Your task to perform on an android device: open app "Fetch Rewards" (install if not already installed) Image 0: 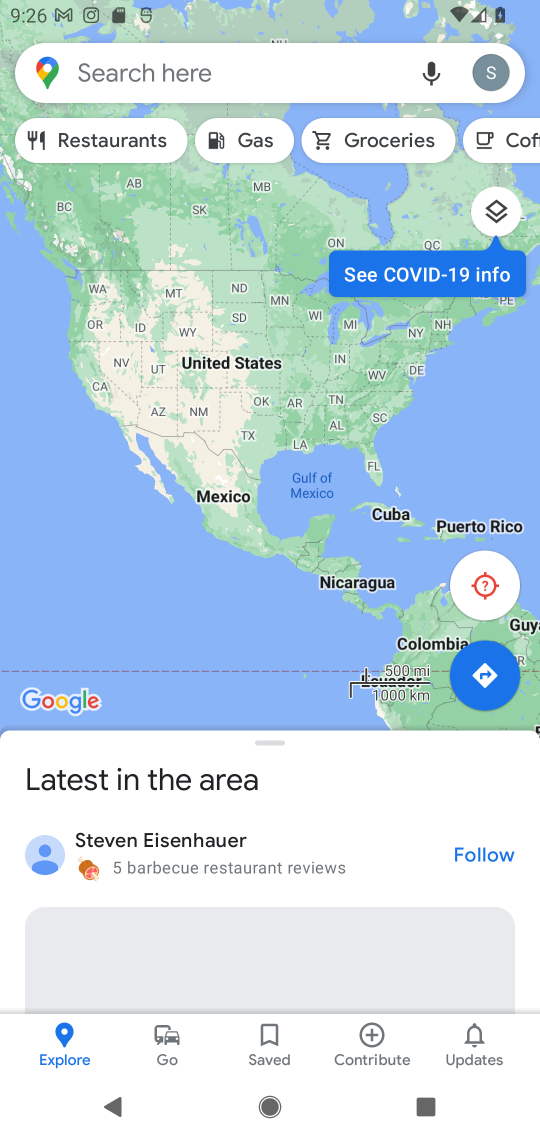
Step 0: press home button
Your task to perform on an android device: open app "Fetch Rewards" (install if not already installed) Image 1: 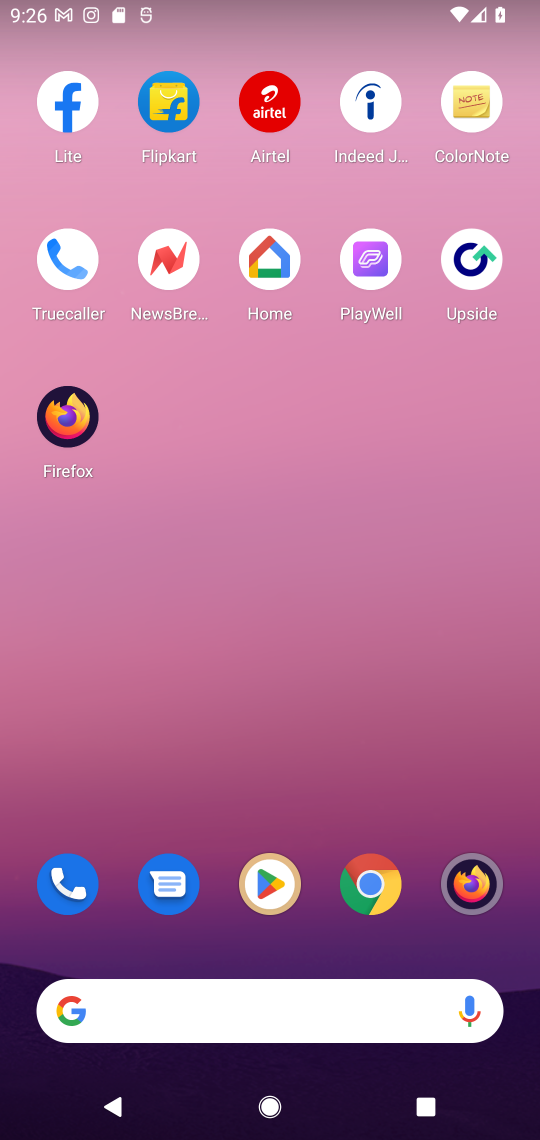
Step 1: press home button
Your task to perform on an android device: open app "Fetch Rewards" (install if not already installed) Image 2: 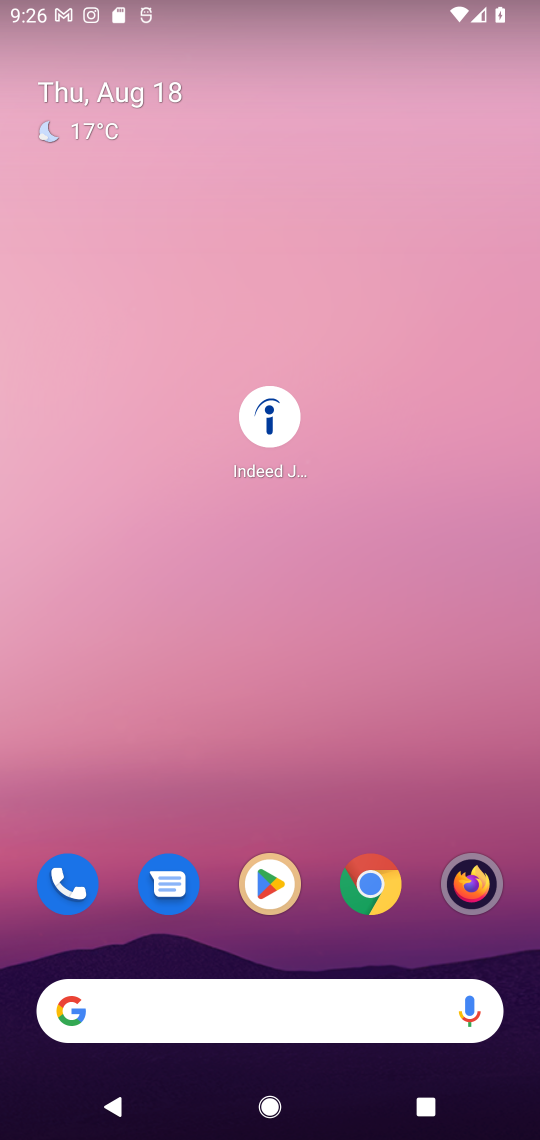
Step 2: drag from (218, 1015) to (317, 49)
Your task to perform on an android device: open app "Fetch Rewards" (install if not already installed) Image 3: 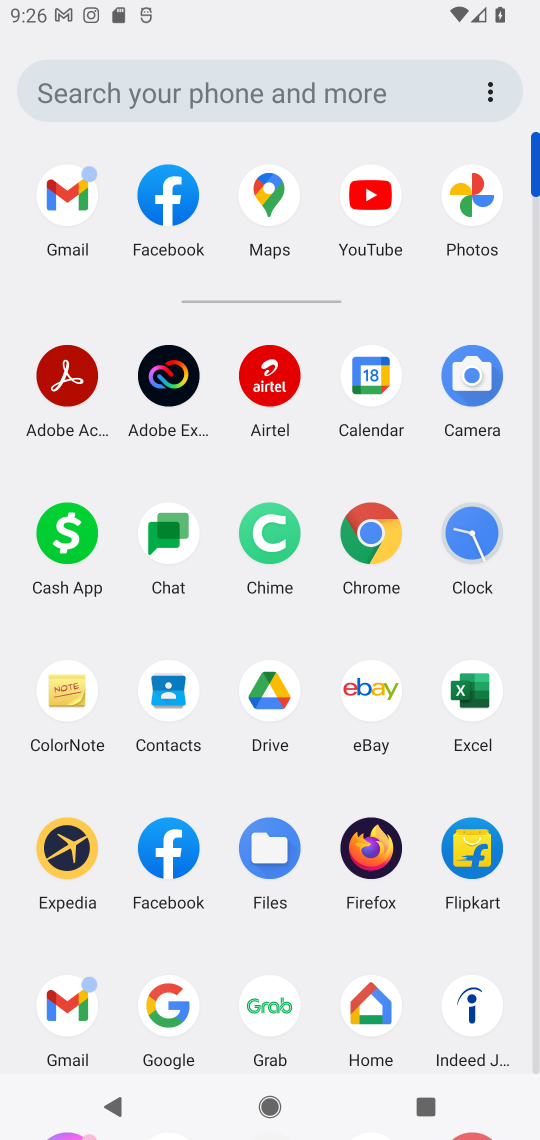
Step 3: drag from (213, 982) to (248, 322)
Your task to perform on an android device: open app "Fetch Rewards" (install if not already installed) Image 4: 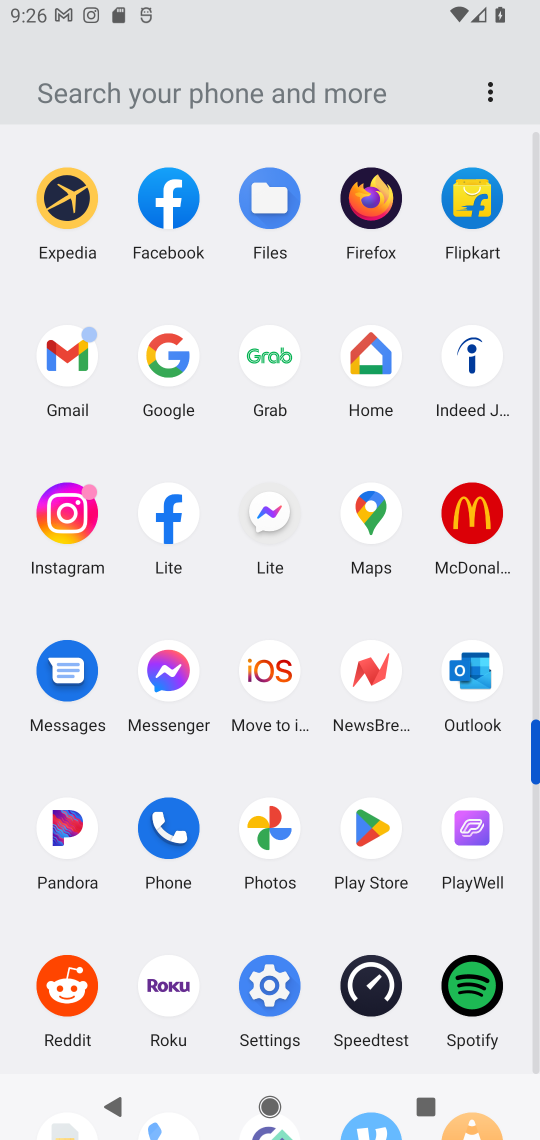
Step 4: click (376, 833)
Your task to perform on an android device: open app "Fetch Rewards" (install if not already installed) Image 5: 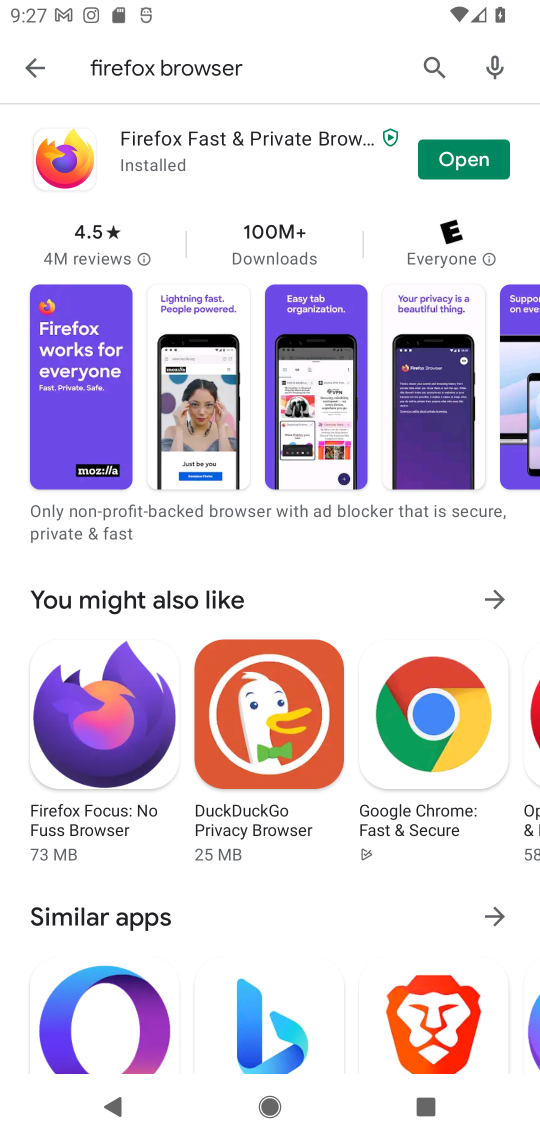
Step 5: press back button
Your task to perform on an android device: open app "Fetch Rewards" (install if not already installed) Image 6: 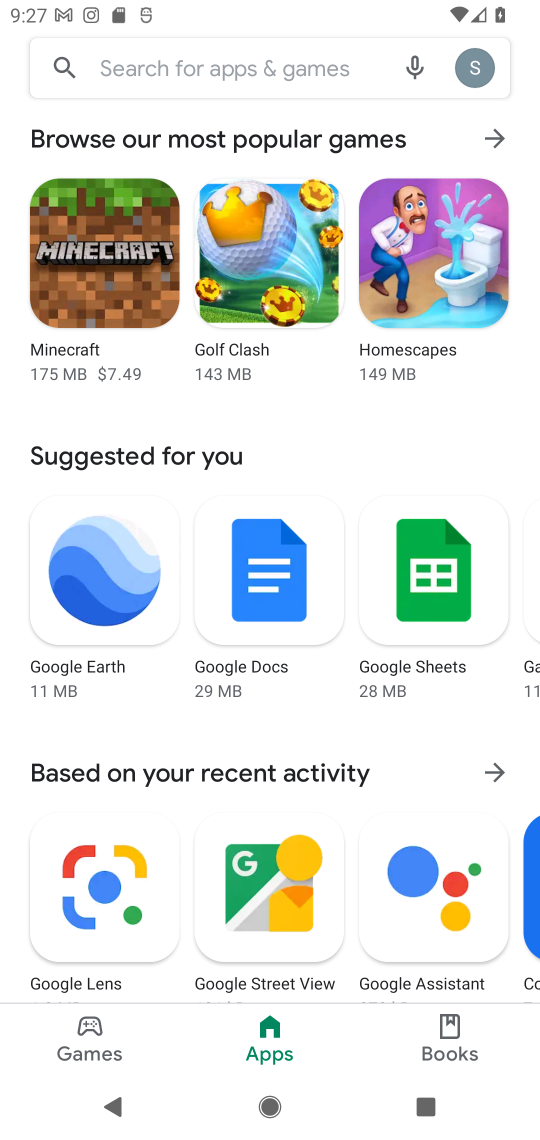
Step 6: click (269, 68)
Your task to perform on an android device: open app "Fetch Rewards" (install if not already installed) Image 7: 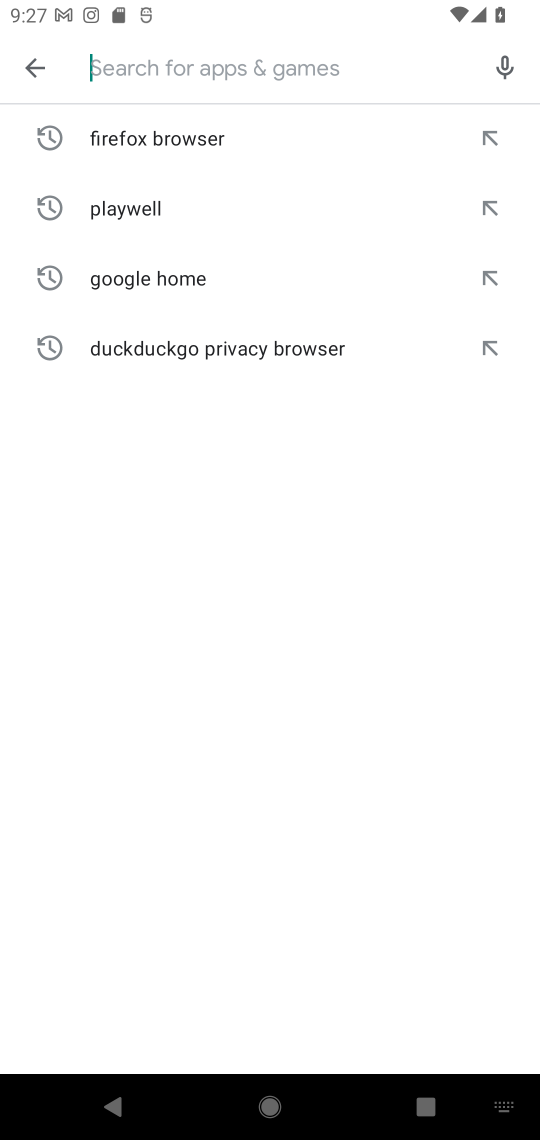
Step 7: type "Fetch Rewards"
Your task to perform on an android device: open app "Fetch Rewards" (install if not already installed) Image 8: 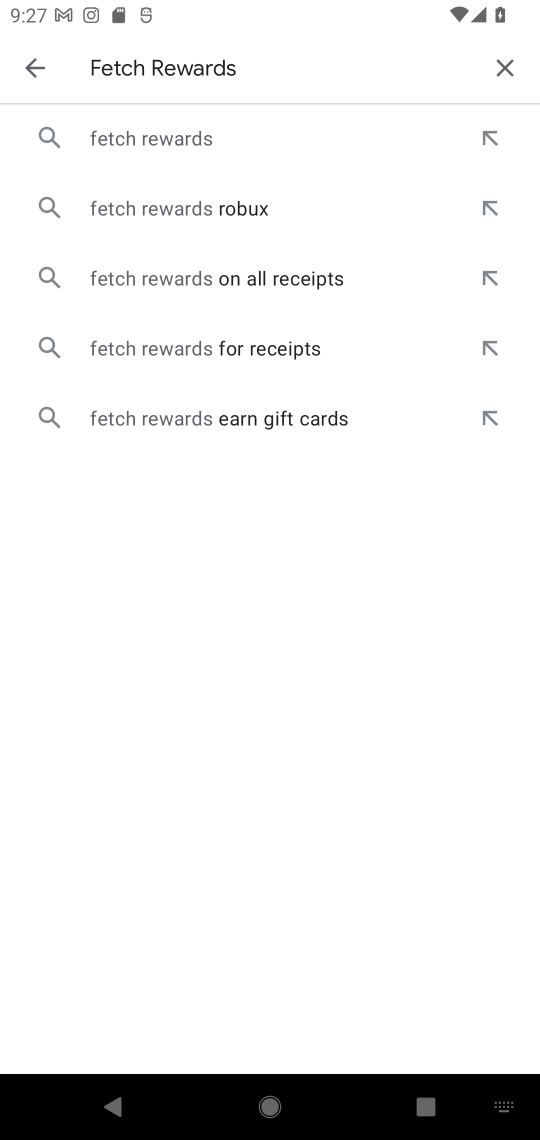
Step 8: click (171, 143)
Your task to perform on an android device: open app "Fetch Rewards" (install if not already installed) Image 9: 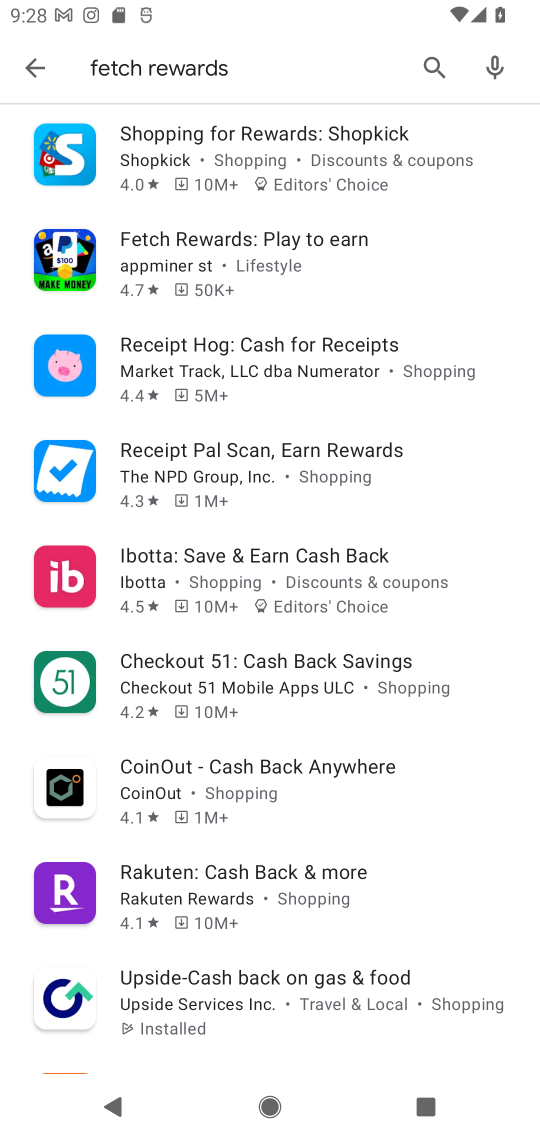
Step 9: click (175, 236)
Your task to perform on an android device: open app "Fetch Rewards" (install if not already installed) Image 10: 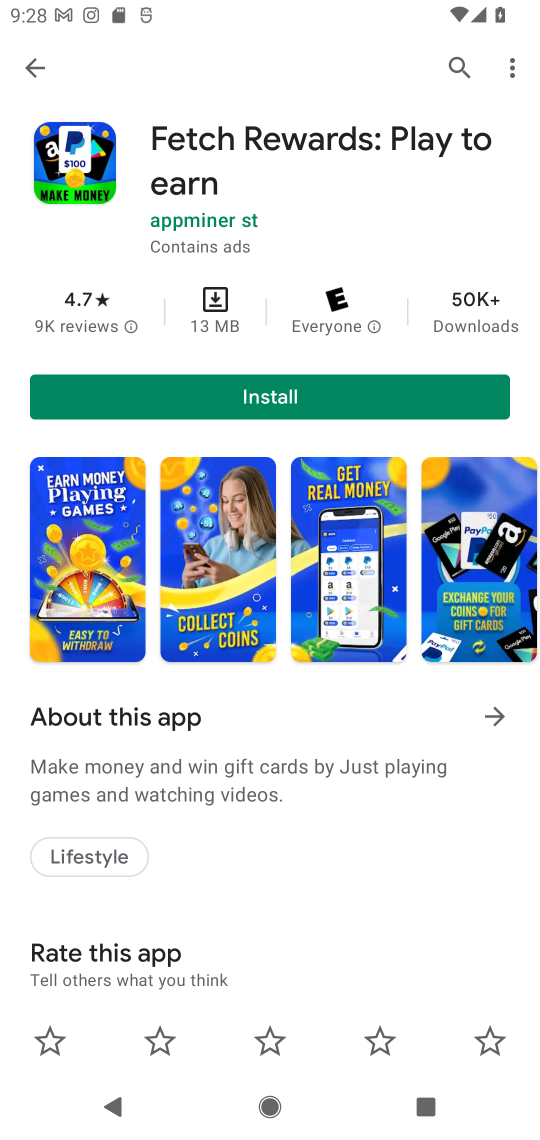
Step 10: click (275, 397)
Your task to perform on an android device: open app "Fetch Rewards" (install if not already installed) Image 11: 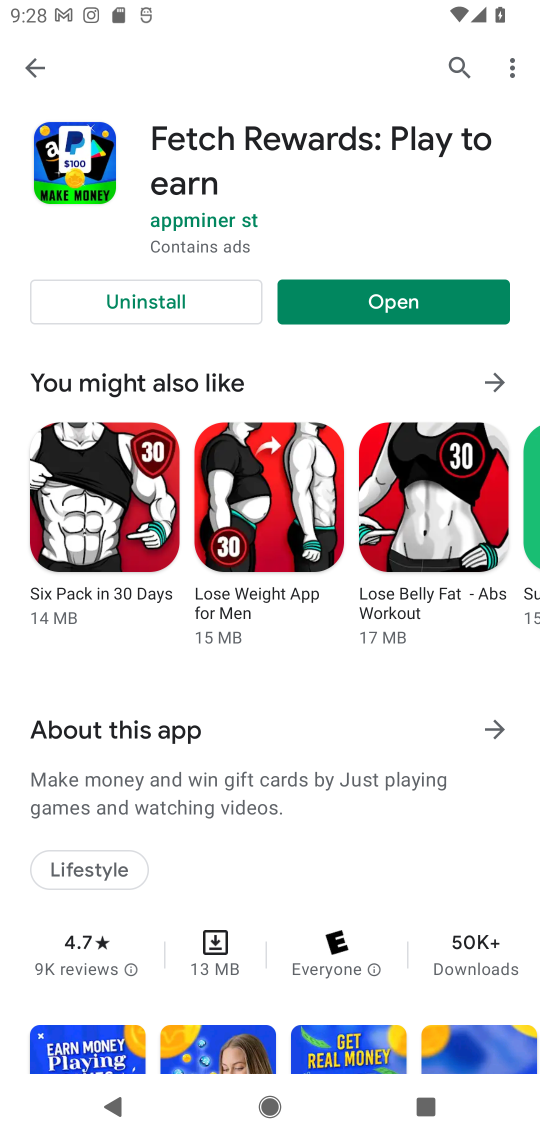
Step 11: task complete